Your task to perform on an android device: What is the recent news? Image 0: 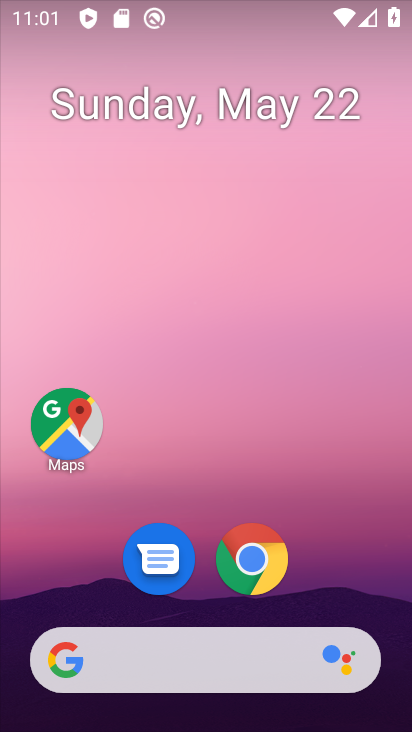
Step 0: drag from (240, 674) to (204, 107)
Your task to perform on an android device: What is the recent news? Image 1: 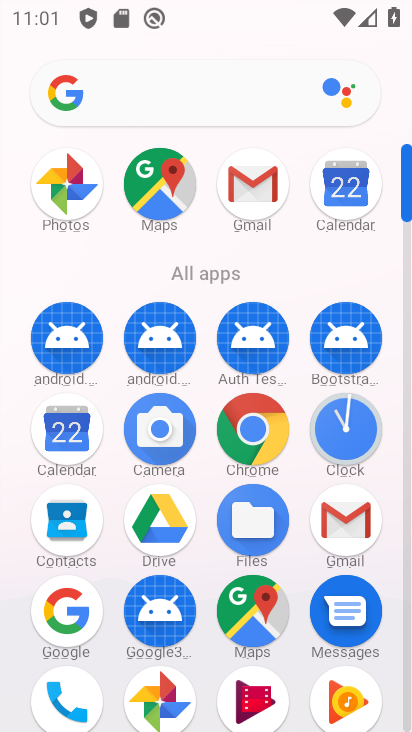
Step 1: click (77, 606)
Your task to perform on an android device: What is the recent news? Image 2: 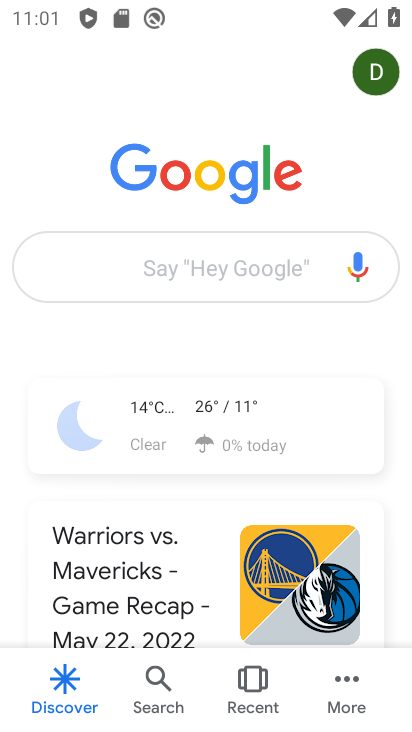
Step 2: task complete